Your task to perform on an android device: turn on translation in the chrome app Image 0: 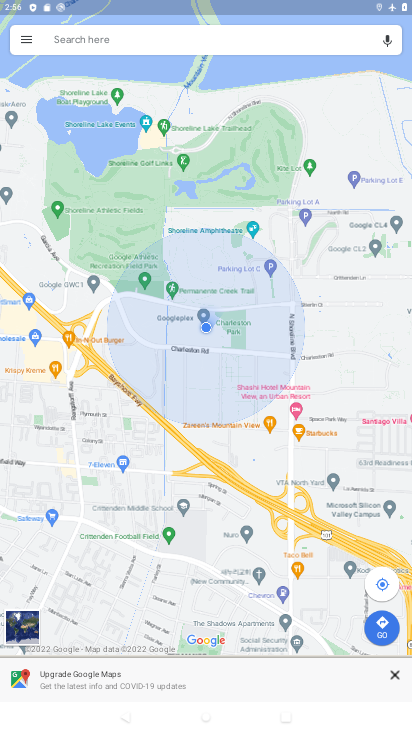
Step 0: press home button
Your task to perform on an android device: turn on translation in the chrome app Image 1: 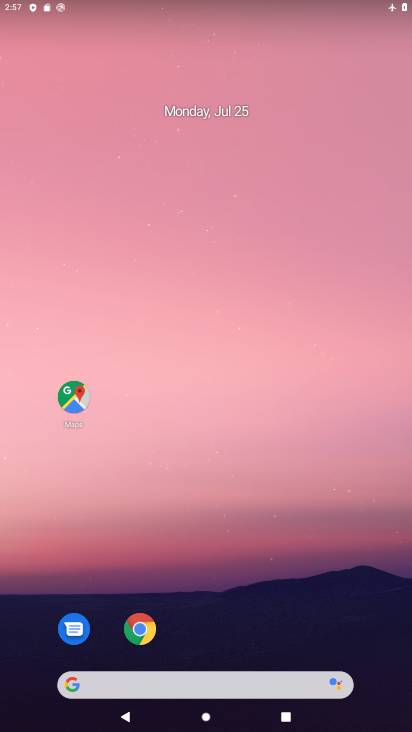
Step 1: click (143, 631)
Your task to perform on an android device: turn on translation in the chrome app Image 2: 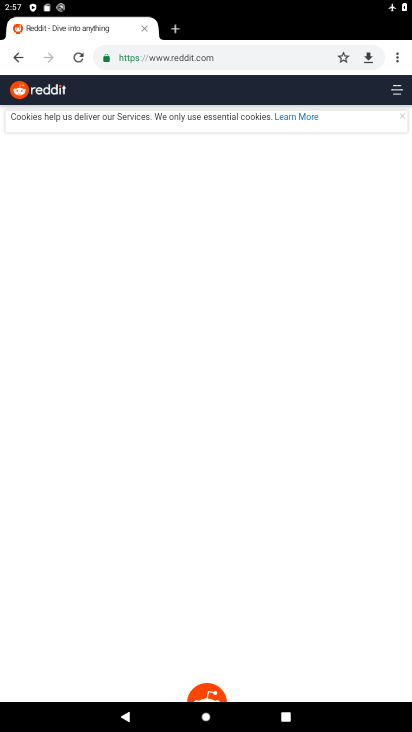
Step 2: drag from (399, 54) to (274, 352)
Your task to perform on an android device: turn on translation in the chrome app Image 3: 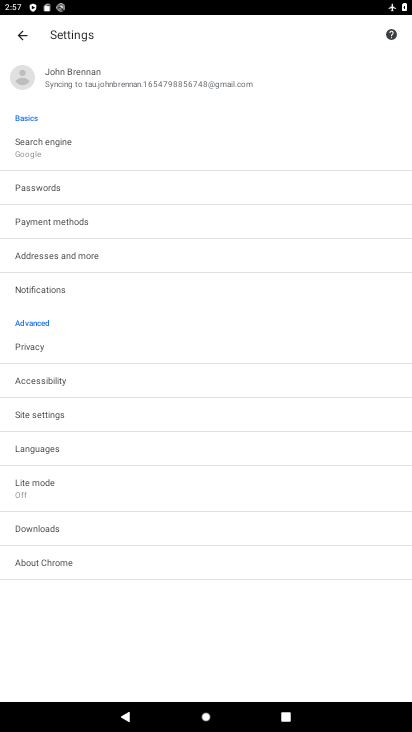
Step 3: click (49, 445)
Your task to perform on an android device: turn on translation in the chrome app Image 4: 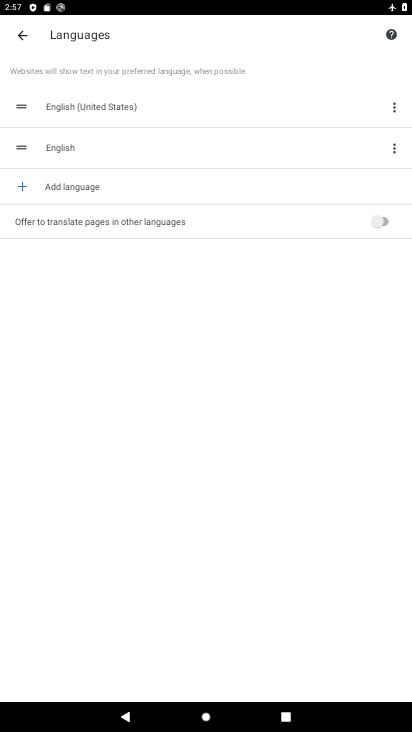
Step 4: click (389, 218)
Your task to perform on an android device: turn on translation in the chrome app Image 5: 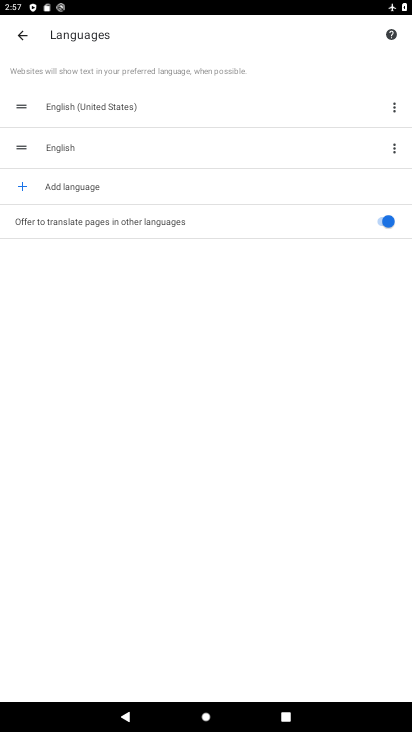
Step 5: task complete